Your task to perform on an android device: Open settings Image 0: 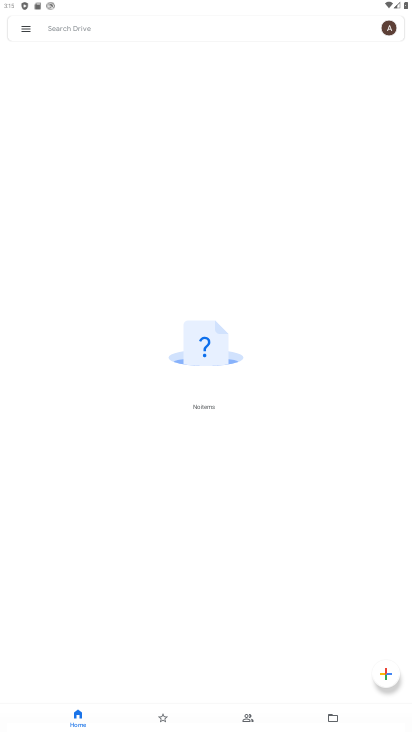
Step 0: press home button
Your task to perform on an android device: Open settings Image 1: 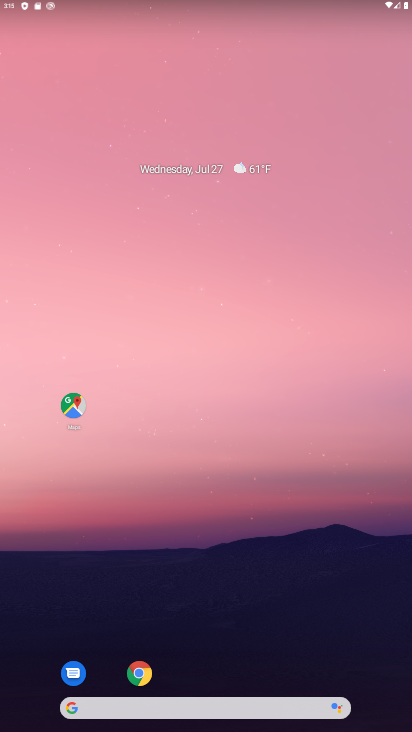
Step 1: drag from (356, 576) to (308, 141)
Your task to perform on an android device: Open settings Image 2: 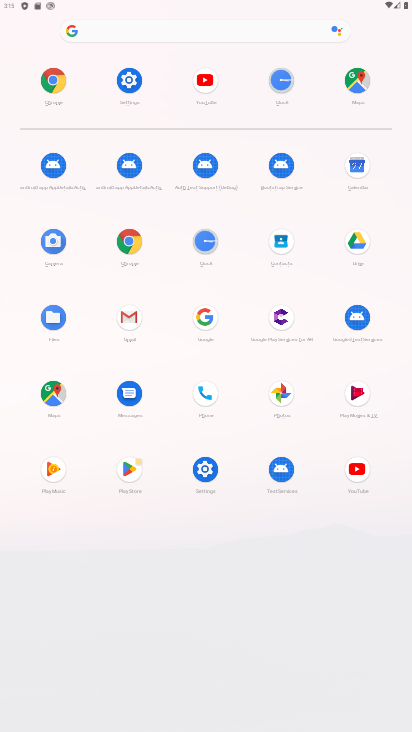
Step 2: click (208, 476)
Your task to perform on an android device: Open settings Image 3: 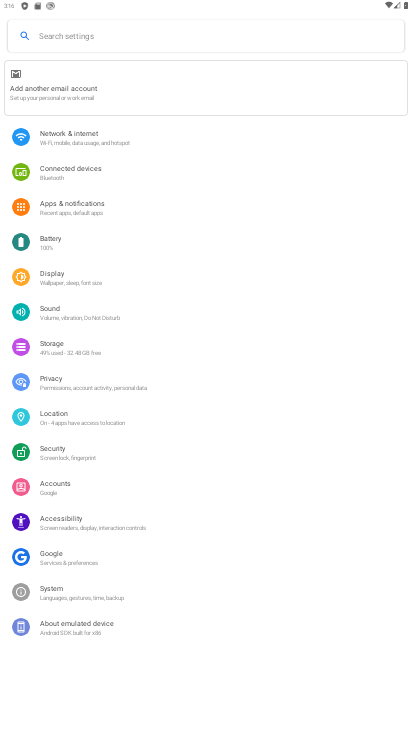
Step 3: task complete